Your task to perform on an android device: What's the weather going to be tomorrow? Image 0: 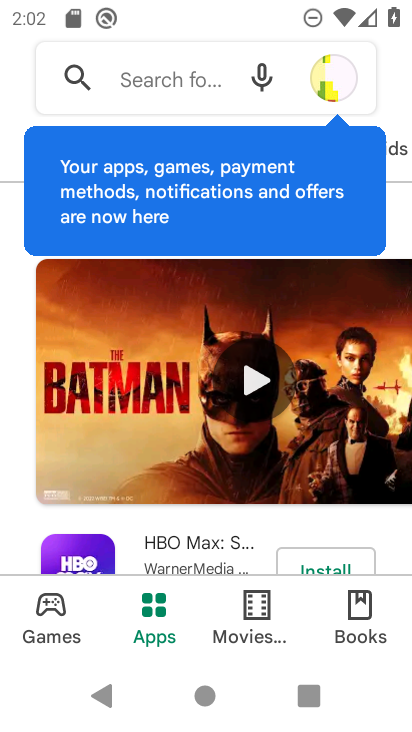
Step 0: press home button
Your task to perform on an android device: What's the weather going to be tomorrow? Image 1: 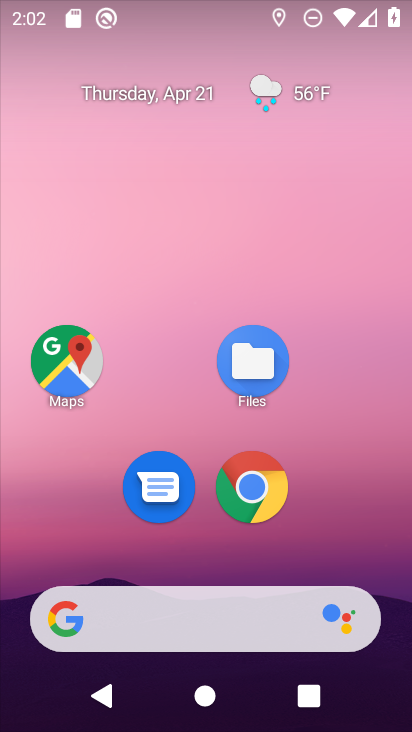
Step 1: drag from (372, 535) to (377, 114)
Your task to perform on an android device: What's the weather going to be tomorrow? Image 2: 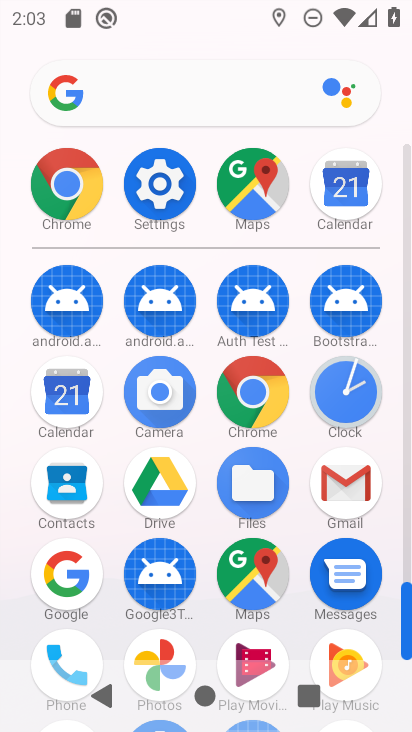
Step 2: click (225, 409)
Your task to perform on an android device: What's the weather going to be tomorrow? Image 3: 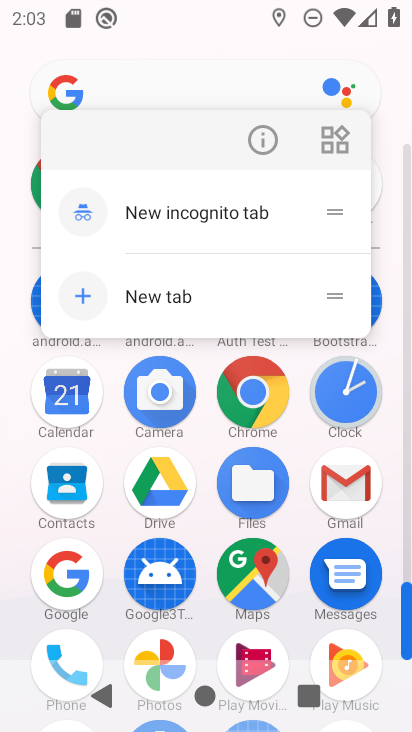
Step 3: click (233, 404)
Your task to perform on an android device: What's the weather going to be tomorrow? Image 4: 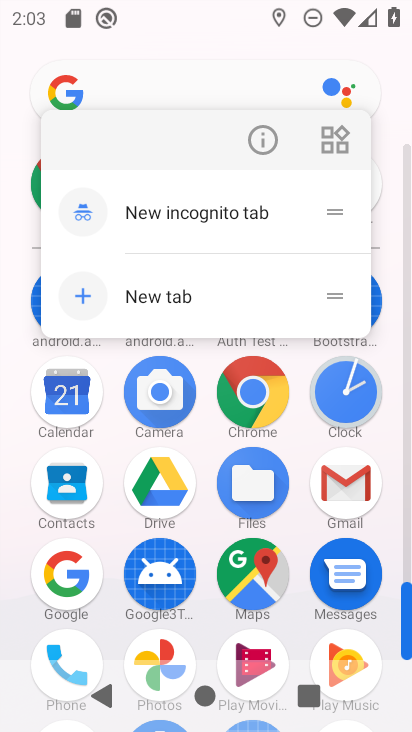
Step 4: click (244, 380)
Your task to perform on an android device: What's the weather going to be tomorrow? Image 5: 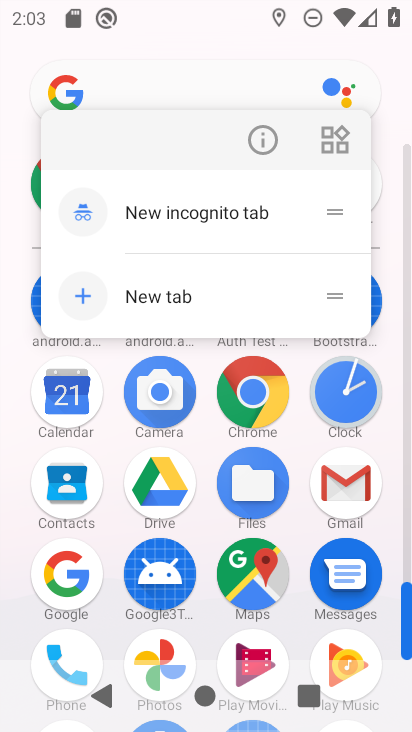
Step 5: click (270, 370)
Your task to perform on an android device: What's the weather going to be tomorrow? Image 6: 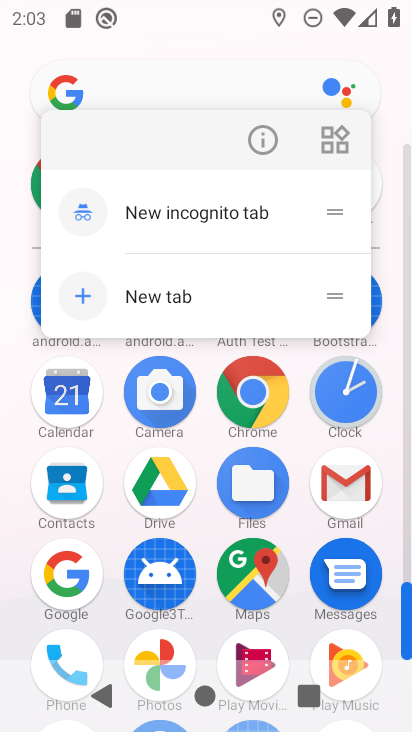
Step 6: click (263, 419)
Your task to perform on an android device: What's the weather going to be tomorrow? Image 7: 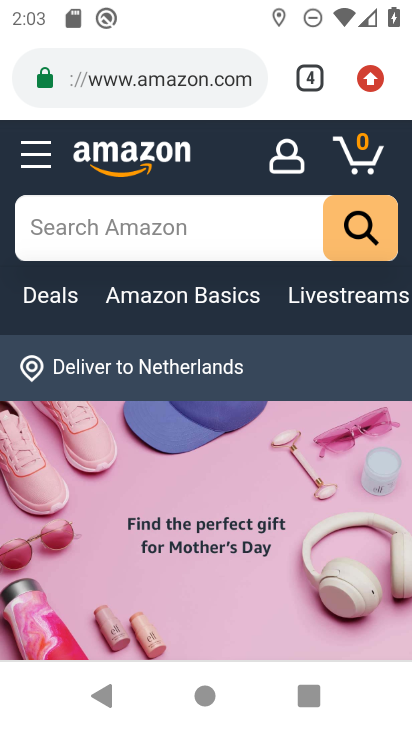
Step 7: click (201, 92)
Your task to perform on an android device: What's the weather going to be tomorrow? Image 8: 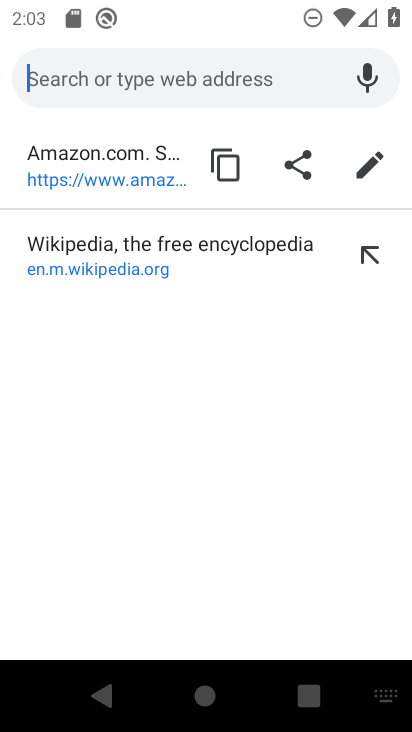
Step 8: type "what's the weather going to be tomorrow"
Your task to perform on an android device: What's the weather going to be tomorrow? Image 9: 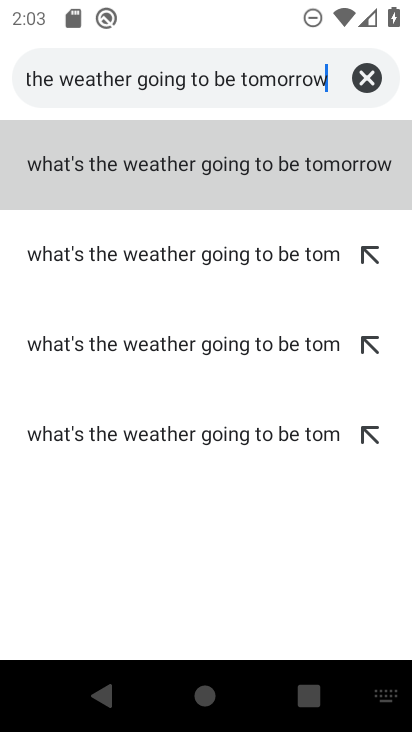
Step 9: click (98, 171)
Your task to perform on an android device: What's the weather going to be tomorrow? Image 10: 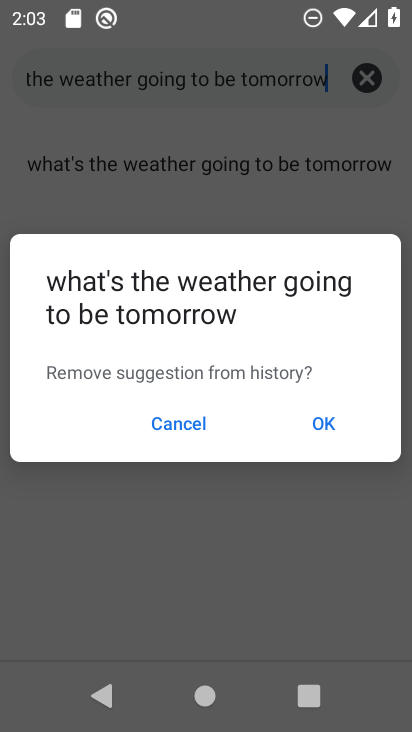
Step 10: click (186, 428)
Your task to perform on an android device: What's the weather going to be tomorrow? Image 11: 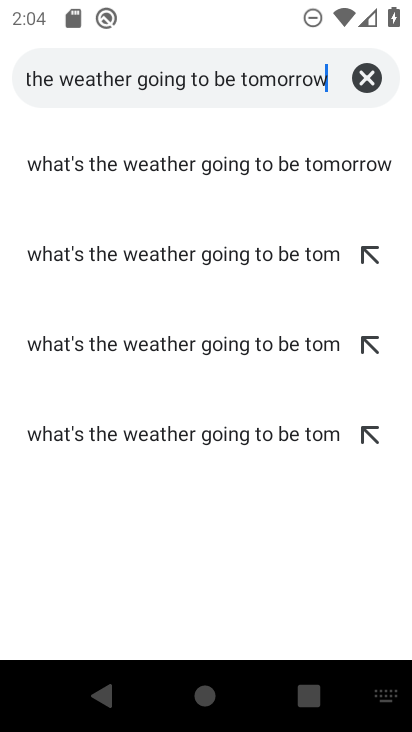
Step 11: click (161, 163)
Your task to perform on an android device: What's the weather going to be tomorrow? Image 12: 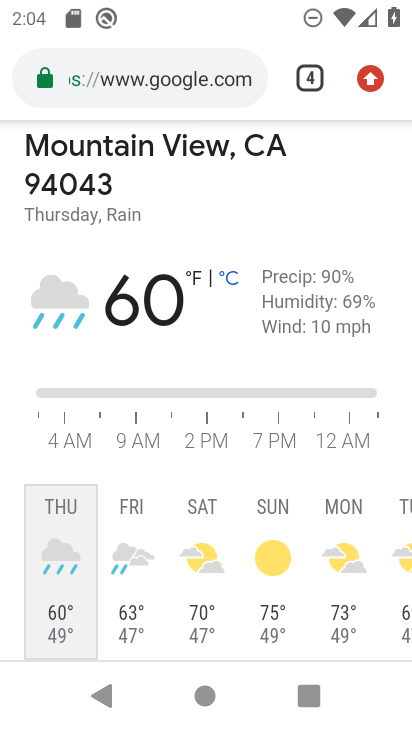
Step 12: task complete